Your task to perform on an android device: Search for sushi restaurants on Maps Image 0: 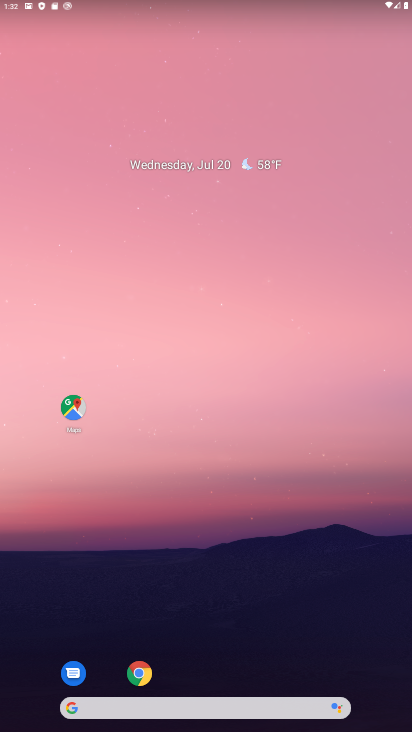
Step 0: click (83, 395)
Your task to perform on an android device: Search for sushi restaurants on Maps Image 1: 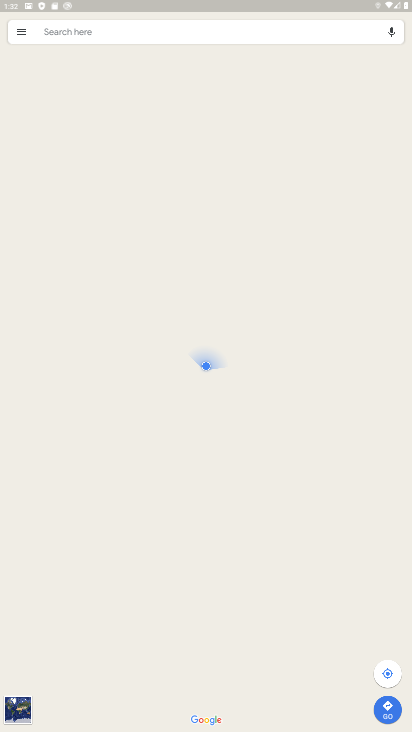
Step 1: click (49, 34)
Your task to perform on an android device: Search for sushi restaurants on Maps Image 2: 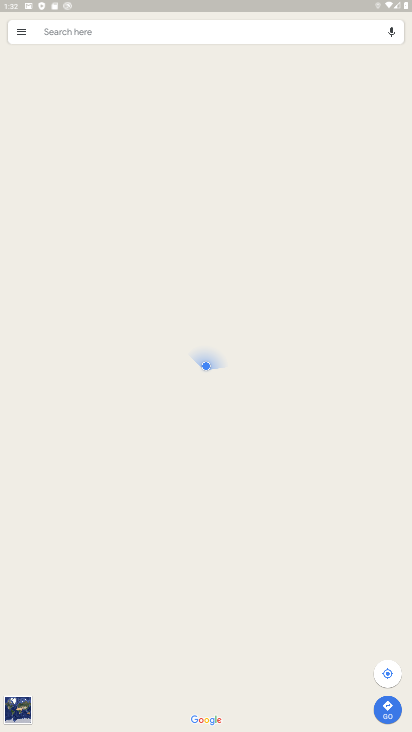
Step 2: click (62, 34)
Your task to perform on an android device: Search for sushi restaurants on Maps Image 3: 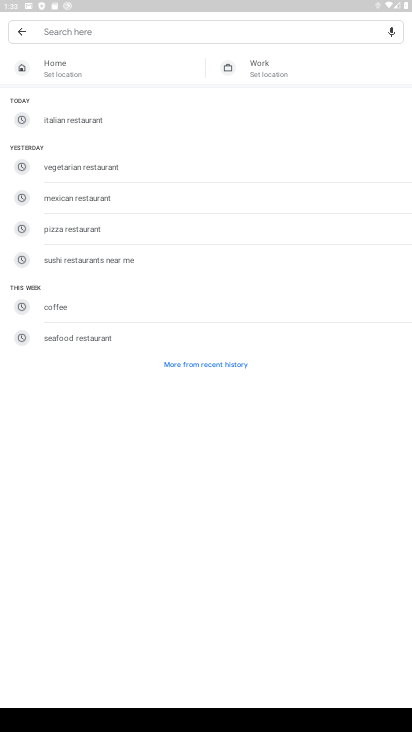
Step 3: type "sushi restaurants"
Your task to perform on an android device: Search for sushi restaurants on Maps Image 4: 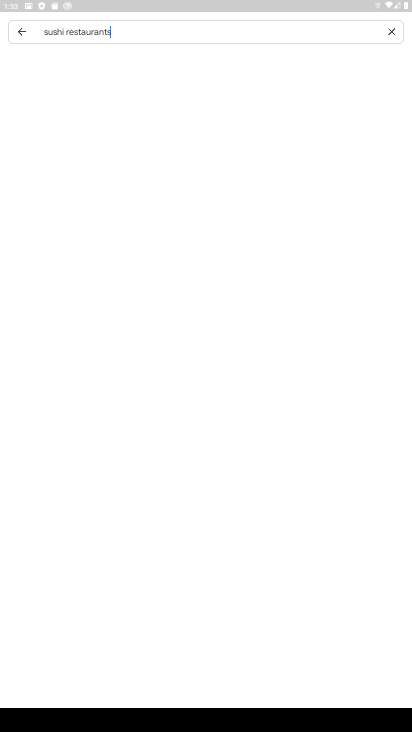
Step 4: type ""
Your task to perform on an android device: Search for sushi restaurants on Maps Image 5: 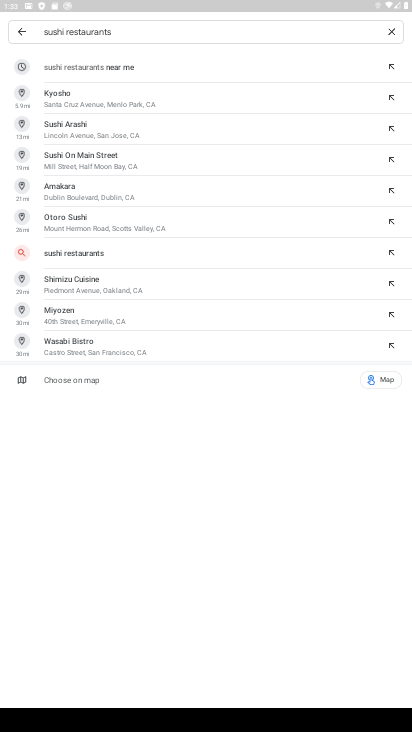
Step 5: type ""
Your task to perform on an android device: Search for sushi restaurants on Maps Image 6: 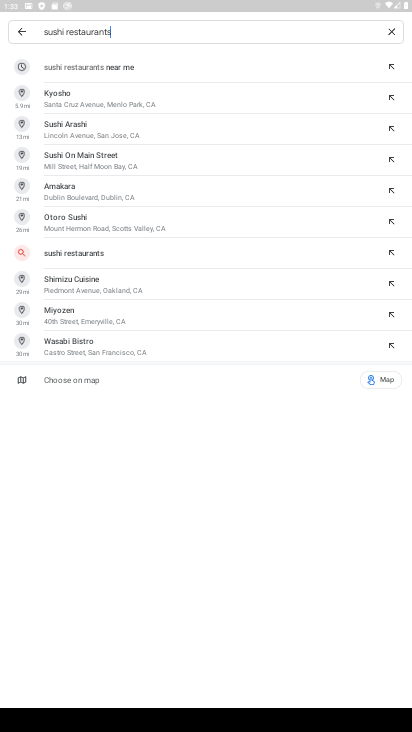
Step 6: type ""
Your task to perform on an android device: Search for sushi restaurants on Maps Image 7: 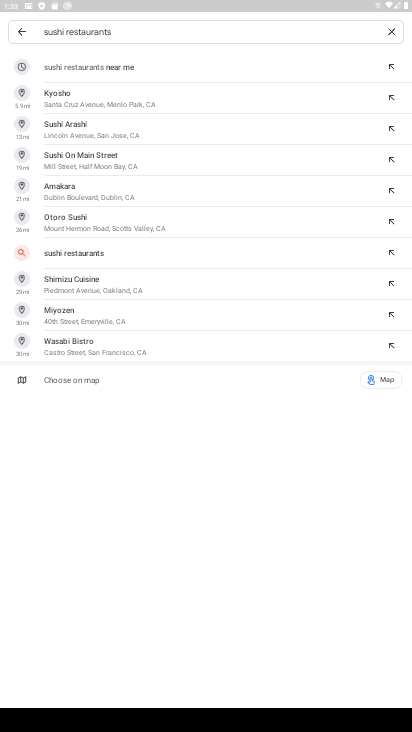
Step 7: task complete